Your task to perform on an android device: turn off picture-in-picture Image 0: 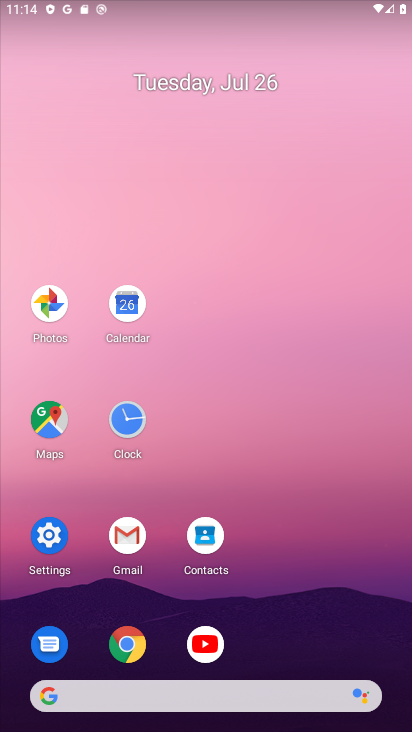
Step 0: click (46, 532)
Your task to perform on an android device: turn off picture-in-picture Image 1: 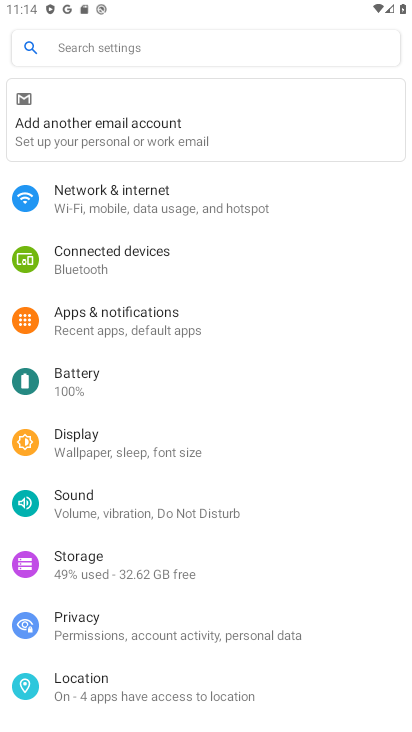
Step 1: click (127, 311)
Your task to perform on an android device: turn off picture-in-picture Image 2: 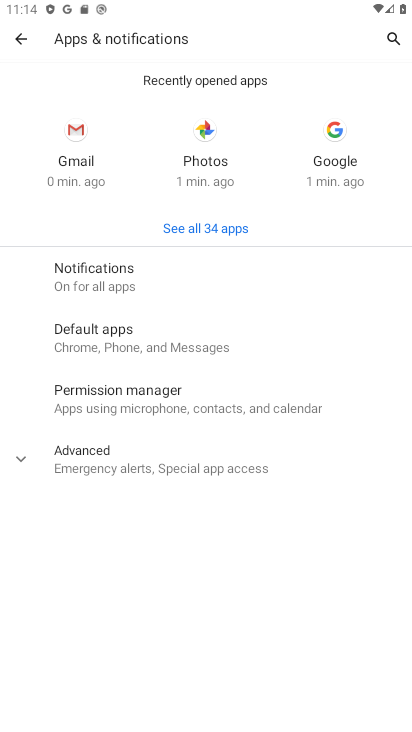
Step 2: click (100, 267)
Your task to perform on an android device: turn off picture-in-picture Image 3: 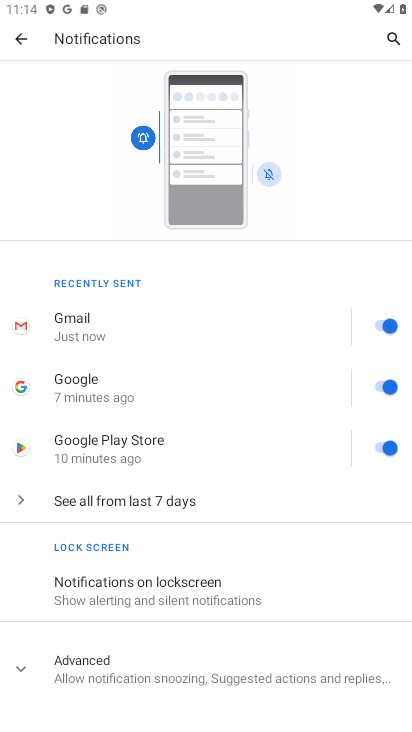
Step 3: click (12, 41)
Your task to perform on an android device: turn off picture-in-picture Image 4: 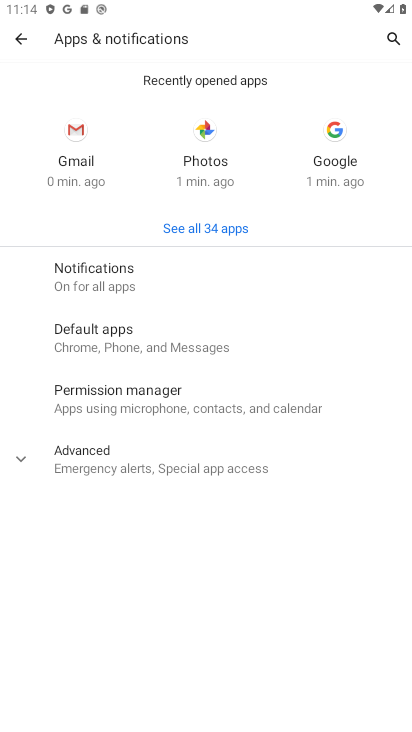
Step 4: click (46, 463)
Your task to perform on an android device: turn off picture-in-picture Image 5: 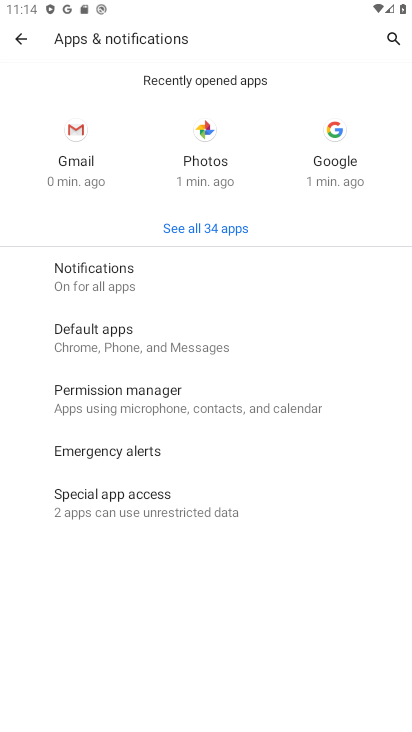
Step 5: click (78, 502)
Your task to perform on an android device: turn off picture-in-picture Image 6: 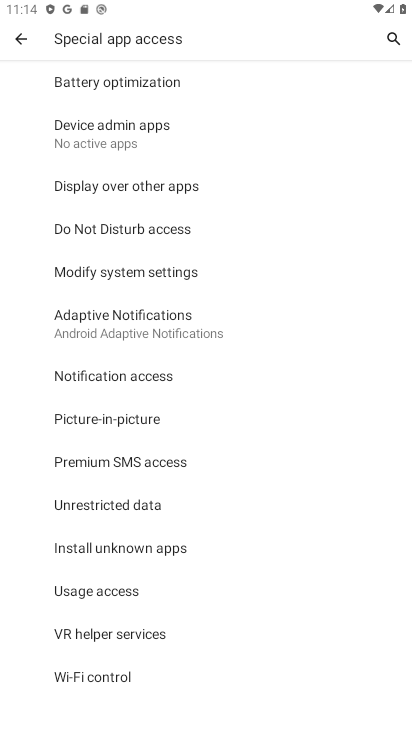
Step 6: click (106, 416)
Your task to perform on an android device: turn off picture-in-picture Image 7: 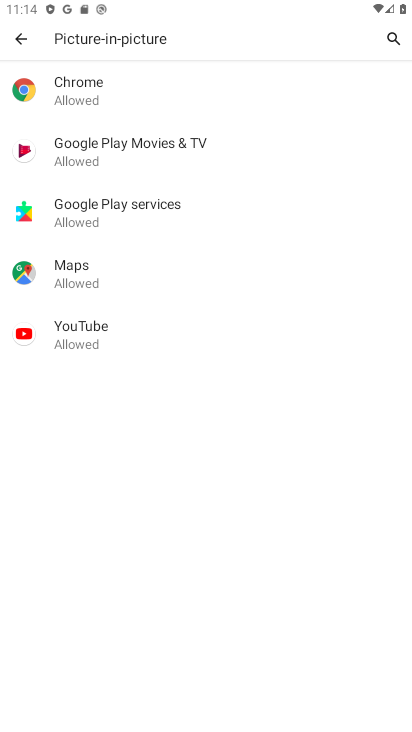
Step 7: click (65, 92)
Your task to perform on an android device: turn off picture-in-picture Image 8: 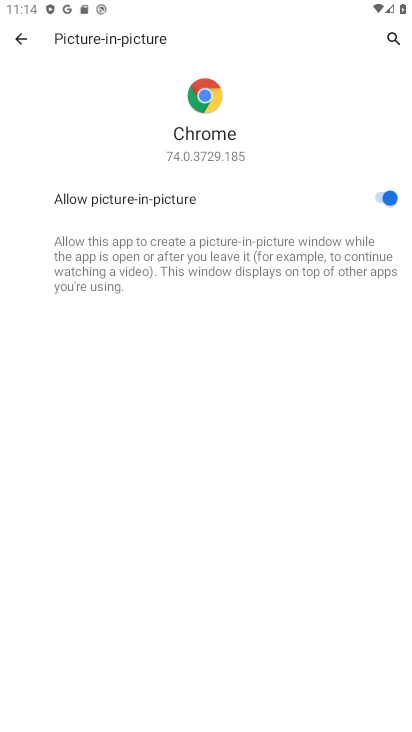
Step 8: click (382, 193)
Your task to perform on an android device: turn off picture-in-picture Image 9: 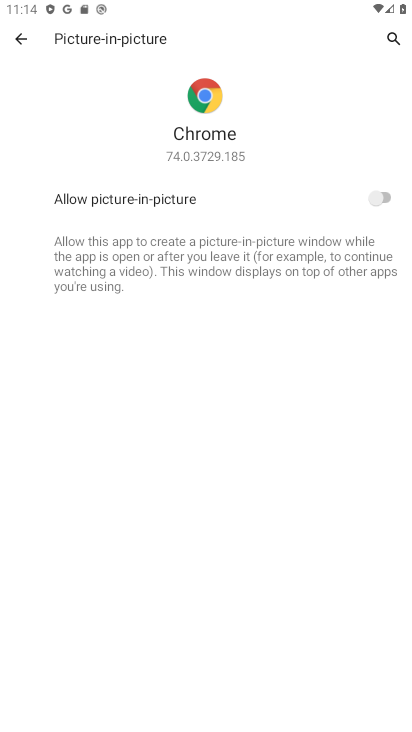
Step 9: click (16, 40)
Your task to perform on an android device: turn off picture-in-picture Image 10: 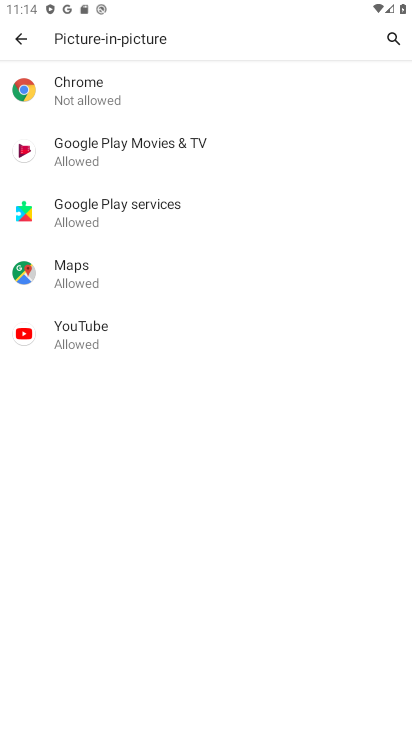
Step 10: click (141, 157)
Your task to perform on an android device: turn off picture-in-picture Image 11: 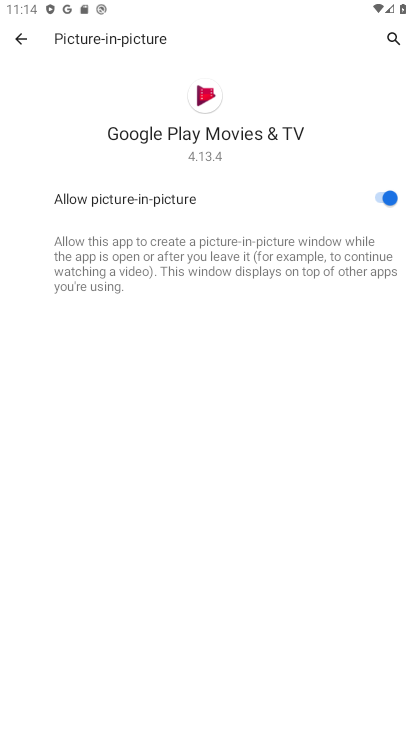
Step 11: click (387, 196)
Your task to perform on an android device: turn off picture-in-picture Image 12: 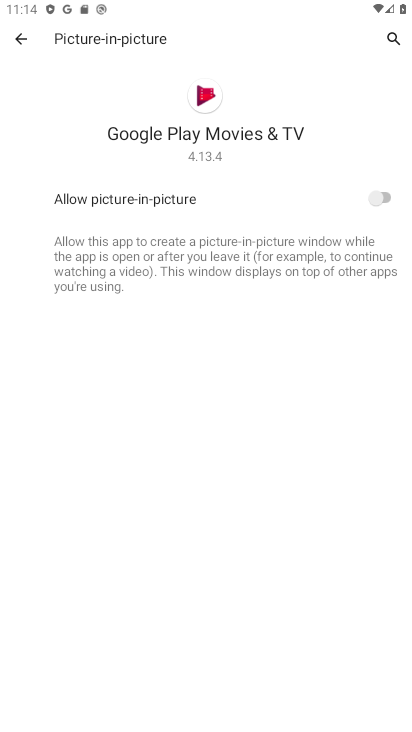
Step 12: click (15, 36)
Your task to perform on an android device: turn off picture-in-picture Image 13: 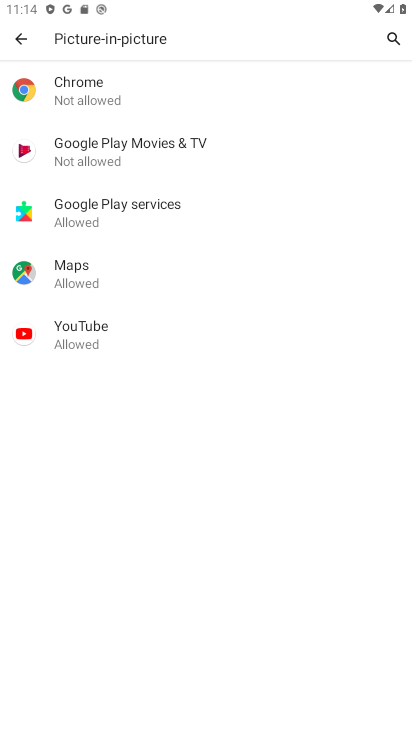
Step 13: click (96, 217)
Your task to perform on an android device: turn off picture-in-picture Image 14: 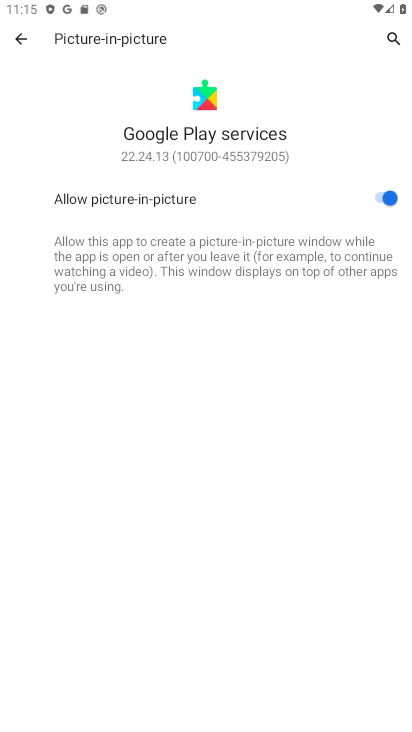
Step 14: click (382, 201)
Your task to perform on an android device: turn off picture-in-picture Image 15: 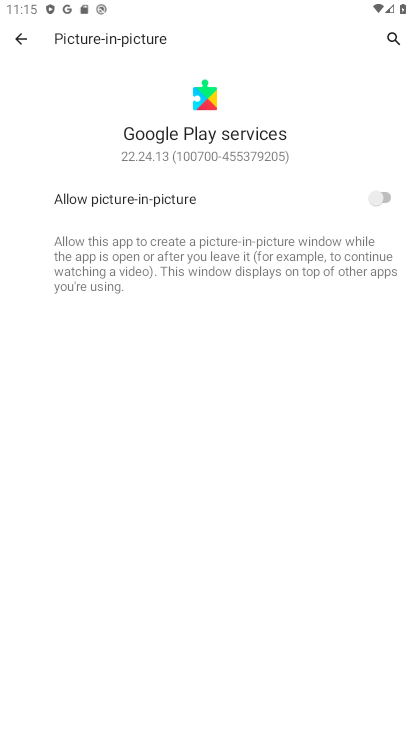
Step 15: click (21, 36)
Your task to perform on an android device: turn off picture-in-picture Image 16: 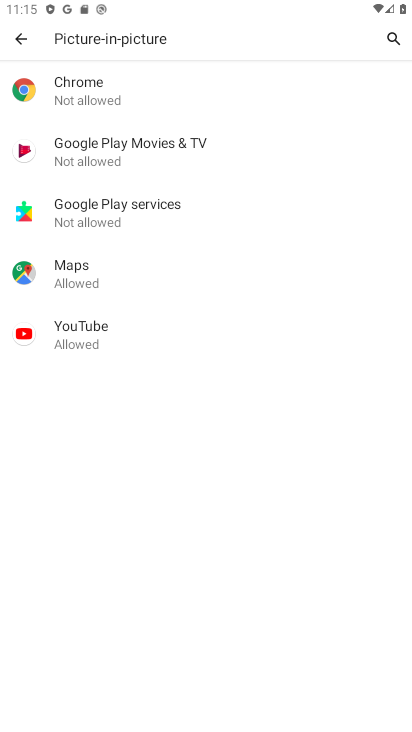
Step 16: click (89, 275)
Your task to perform on an android device: turn off picture-in-picture Image 17: 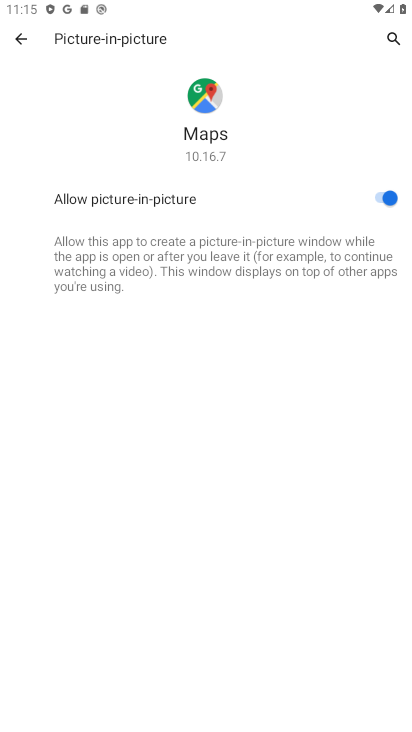
Step 17: click (390, 198)
Your task to perform on an android device: turn off picture-in-picture Image 18: 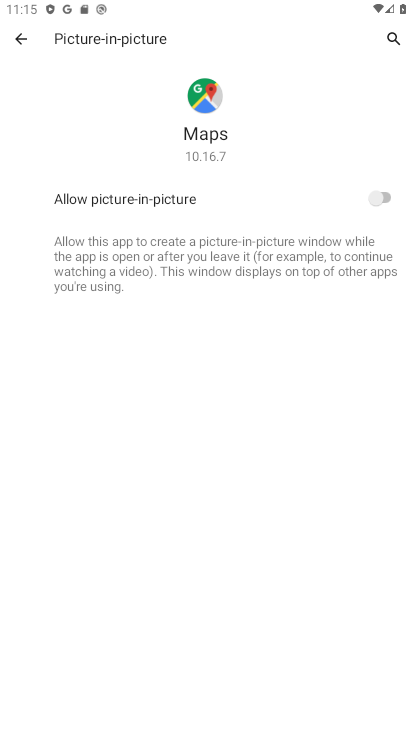
Step 18: click (18, 38)
Your task to perform on an android device: turn off picture-in-picture Image 19: 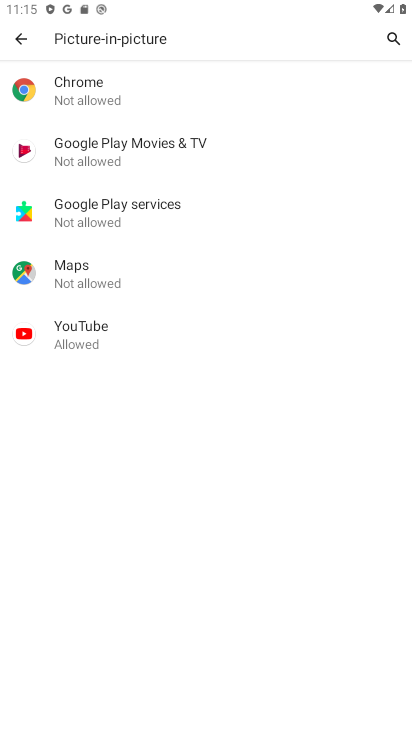
Step 19: click (85, 330)
Your task to perform on an android device: turn off picture-in-picture Image 20: 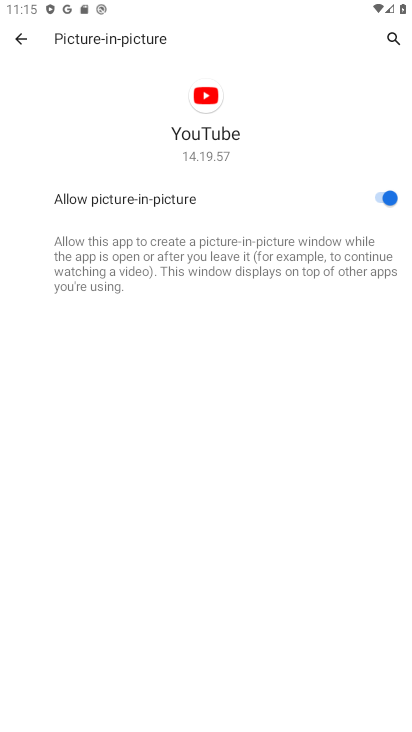
Step 20: click (388, 197)
Your task to perform on an android device: turn off picture-in-picture Image 21: 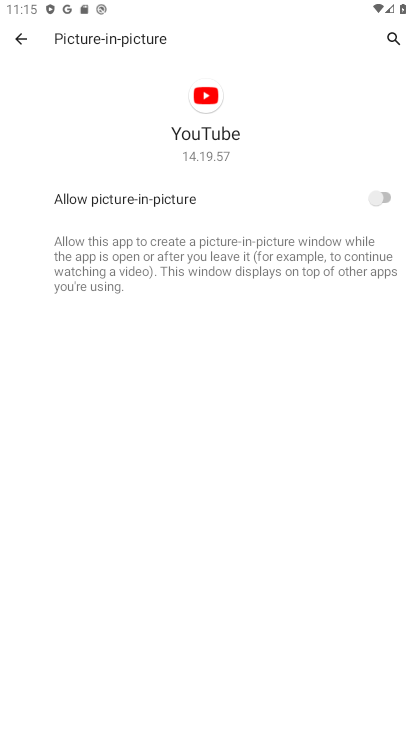
Step 21: click (19, 40)
Your task to perform on an android device: turn off picture-in-picture Image 22: 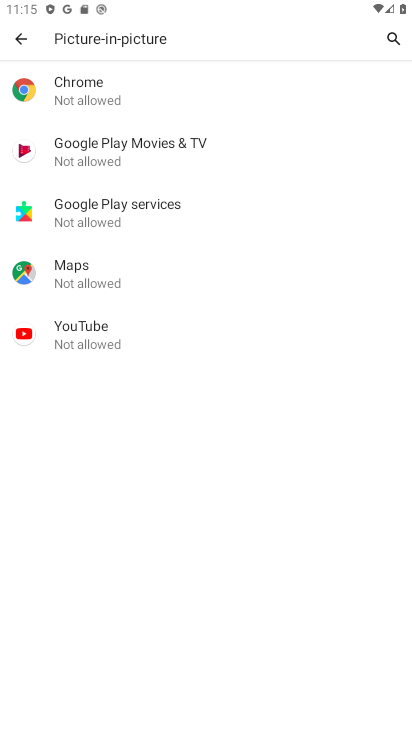
Step 22: task complete